Your task to perform on an android device: Turn off the flashlight Image 0: 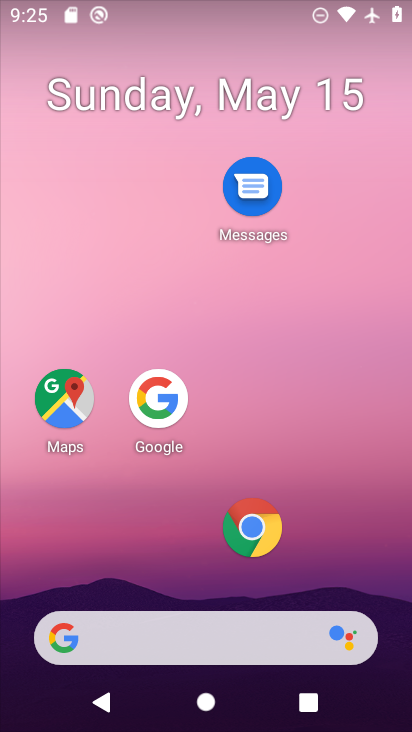
Step 0: drag from (232, 8) to (146, 375)
Your task to perform on an android device: Turn off the flashlight Image 1: 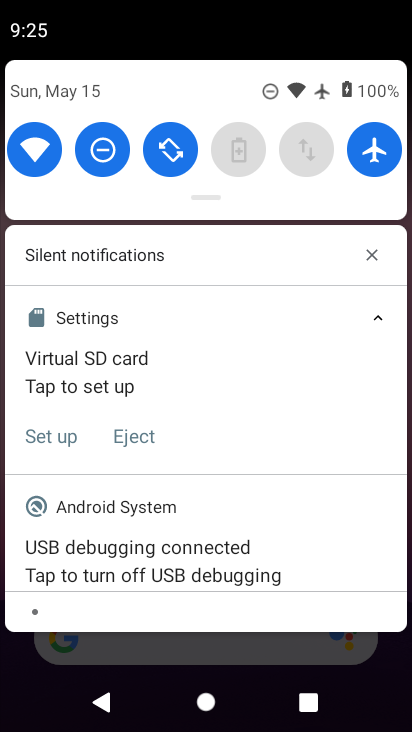
Step 1: task complete